Your task to perform on an android device: Do I have any events tomorrow? Image 0: 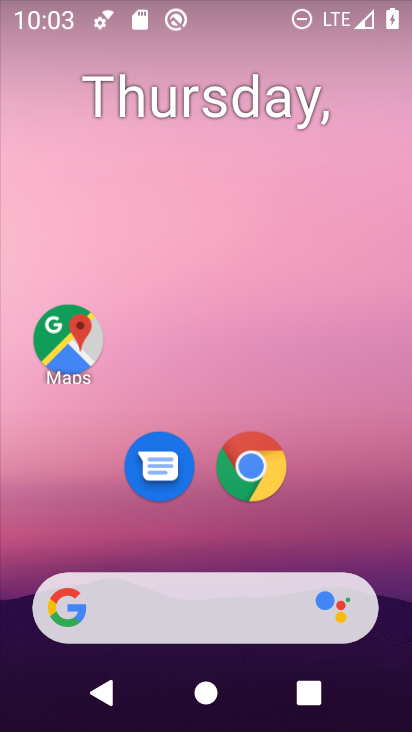
Step 0: drag from (189, 605) to (229, 143)
Your task to perform on an android device: Do I have any events tomorrow? Image 1: 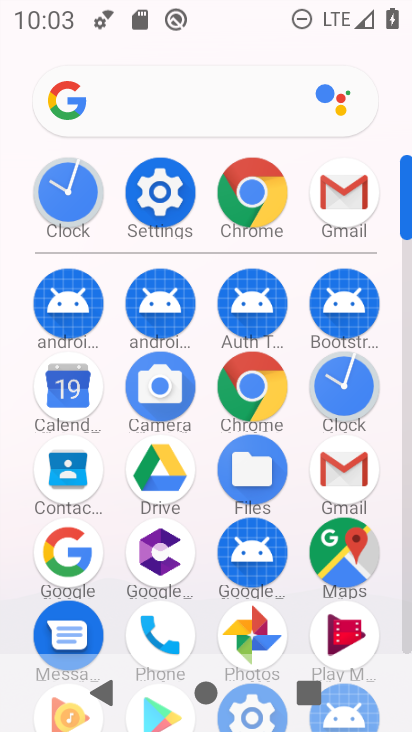
Step 1: click (79, 399)
Your task to perform on an android device: Do I have any events tomorrow? Image 2: 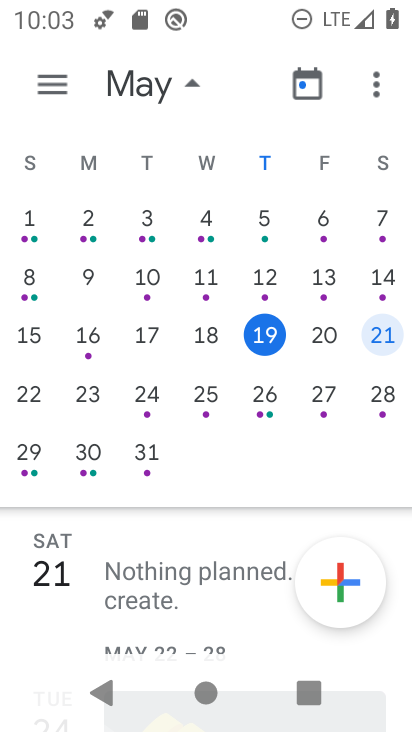
Step 2: click (382, 332)
Your task to perform on an android device: Do I have any events tomorrow? Image 3: 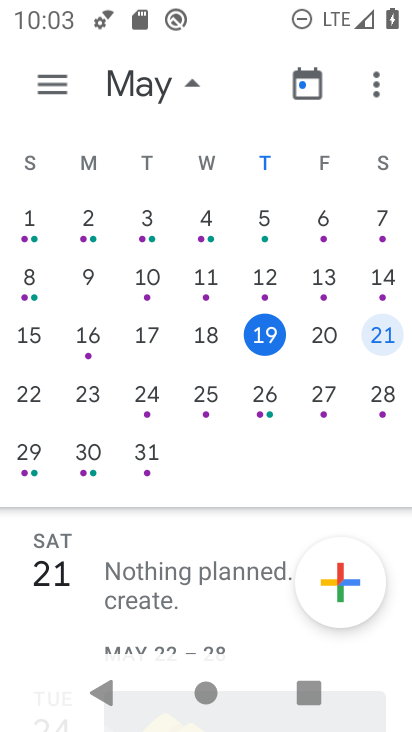
Step 3: task complete